Your task to perform on an android device: Go to privacy settings Image 0: 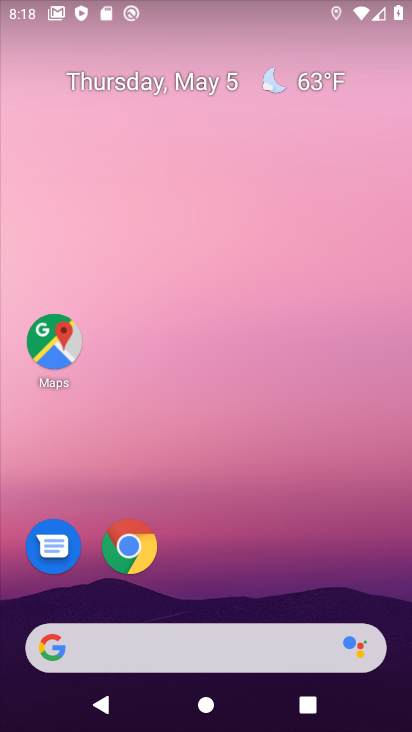
Step 0: drag from (244, 608) to (177, 234)
Your task to perform on an android device: Go to privacy settings Image 1: 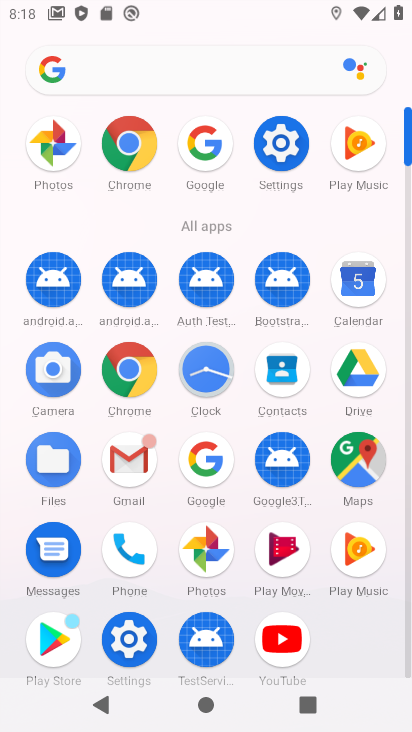
Step 1: click (278, 139)
Your task to perform on an android device: Go to privacy settings Image 2: 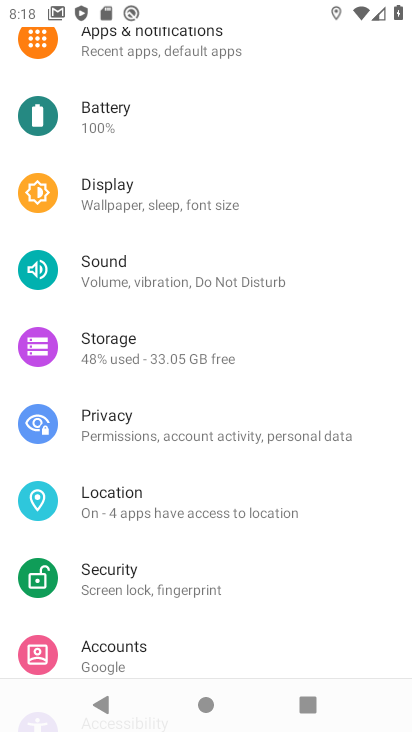
Step 2: click (108, 419)
Your task to perform on an android device: Go to privacy settings Image 3: 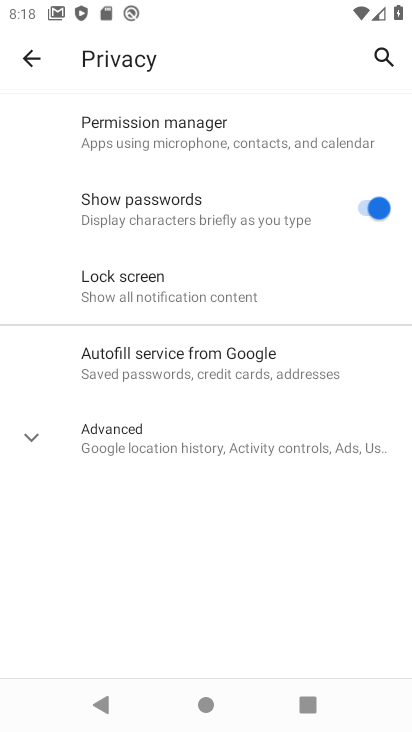
Step 3: task complete